Your task to perform on an android device: turn on location history Image 0: 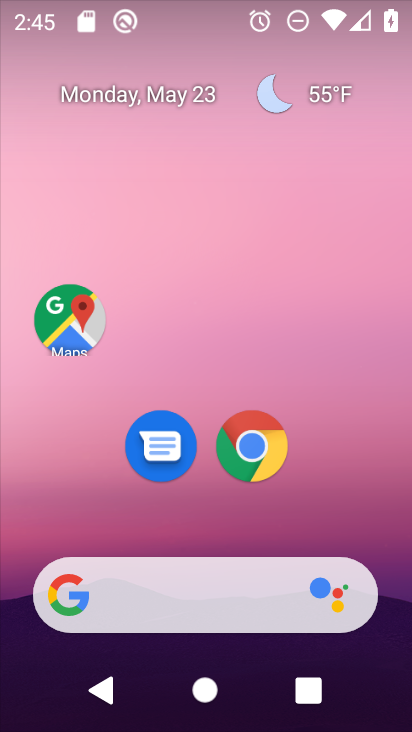
Step 0: drag from (200, 486) to (165, 129)
Your task to perform on an android device: turn on location history Image 1: 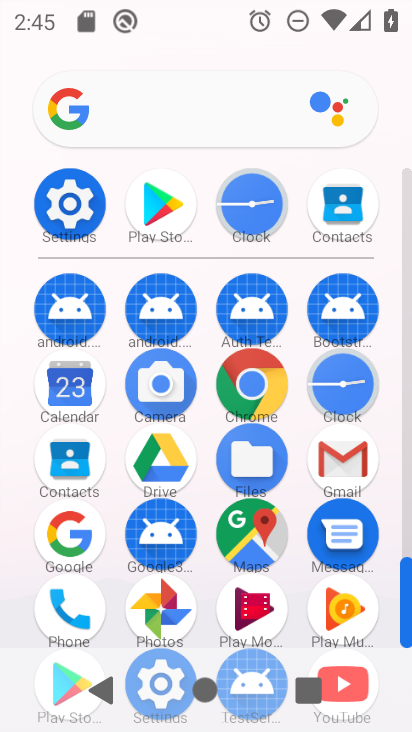
Step 1: click (81, 204)
Your task to perform on an android device: turn on location history Image 2: 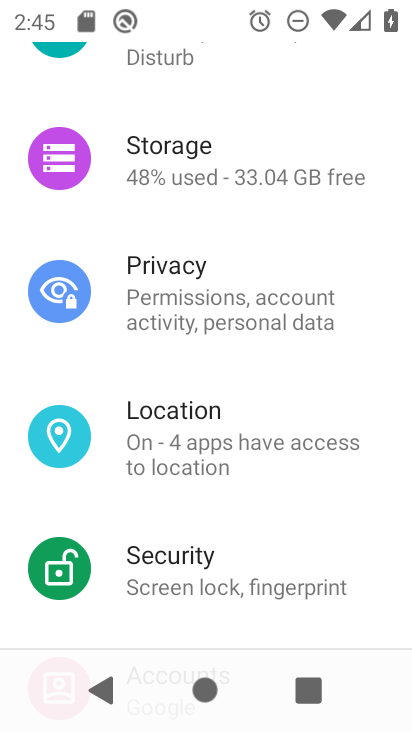
Step 2: click (199, 432)
Your task to perform on an android device: turn on location history Image 3: 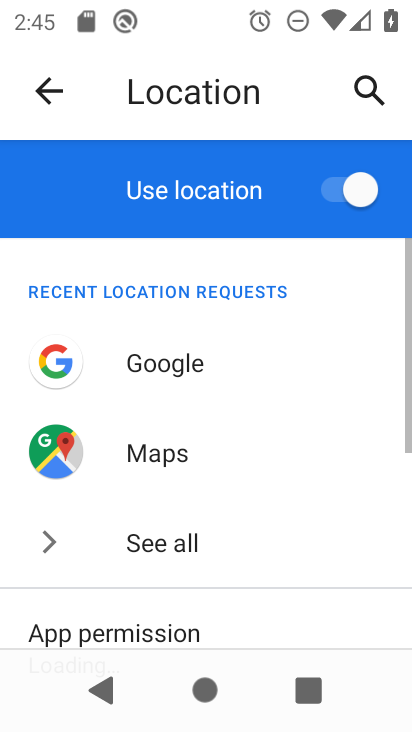
Step 3: drag from (239, 570) to (240, 262)
Your task to perform on an android device: turn on location history Image 4: 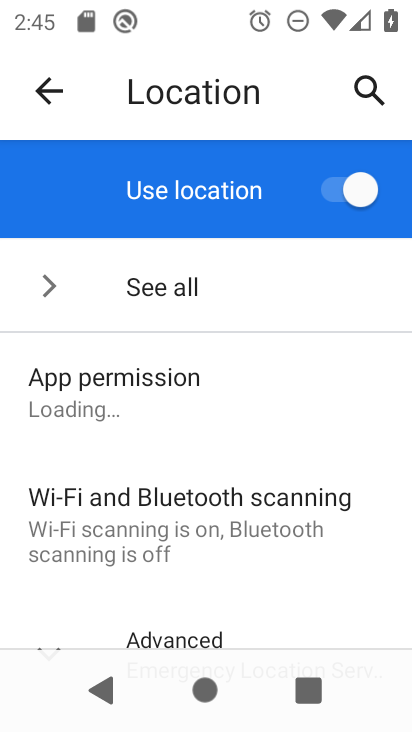
Step 4: drag from (253, 536) to (255, 323)
Your task to perform on an android device: turn on location history Image 5: 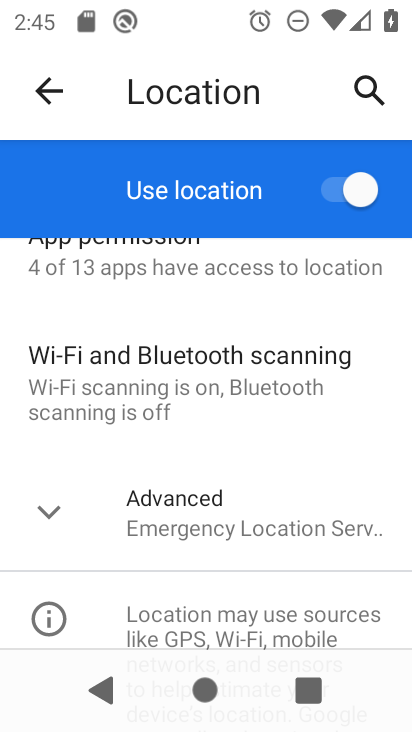
Step 5: drag from (258, 501) to (259, 388)
Your task to perform on an android device: turn on location history Image 6: 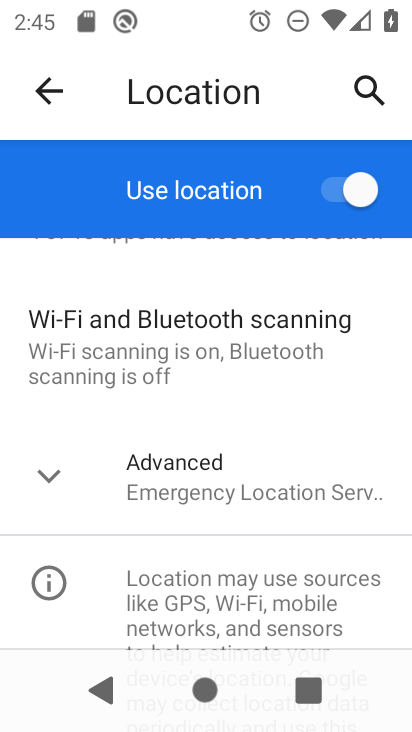
Step 6: click (149, 492)
Your task to perform on an android device: turn on location history Image 7: 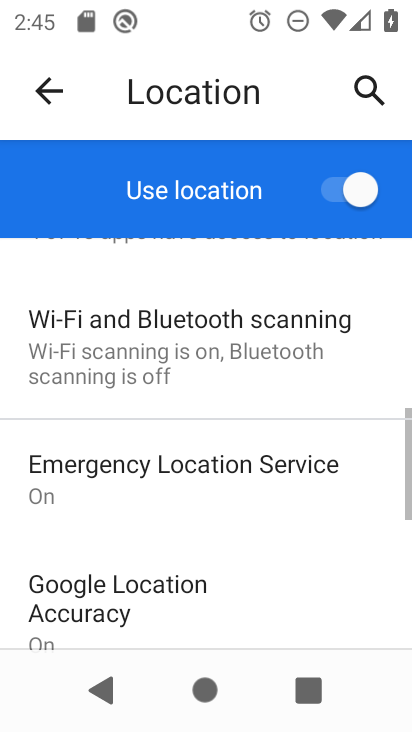
Step 7: drag from (240, 587) to (238, 416)
Your task to perform on an android device: turn on location history Image 8: 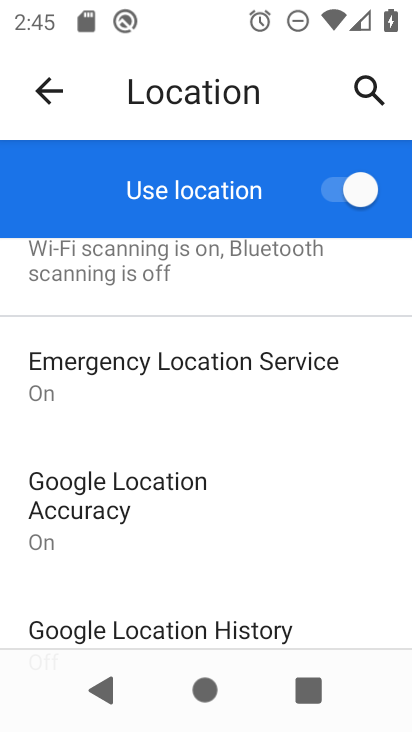
Step 8: drag from (187, 462) to (227, 326)
Your task to perform on an android device: turn on location history Image 9: 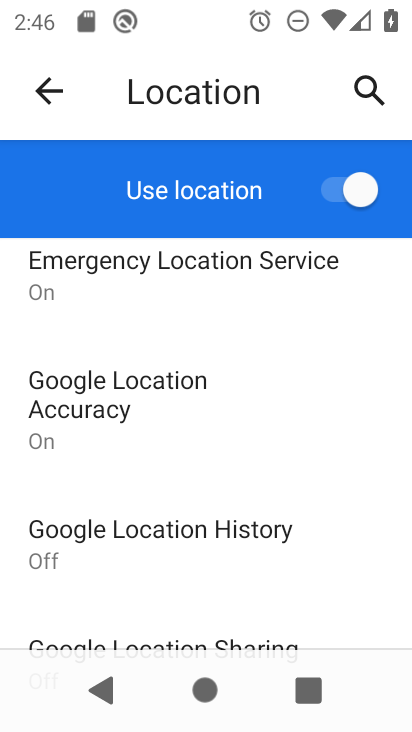
Step 9: click (223, 530)
Your task to perform on an android device: turn on location history Image 10: 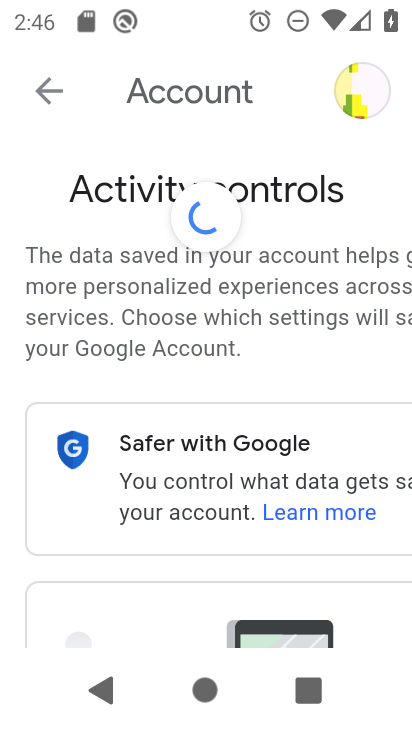
Step 10: task complete